Your task to perform on an android device: open app "Reddit" Image 0: 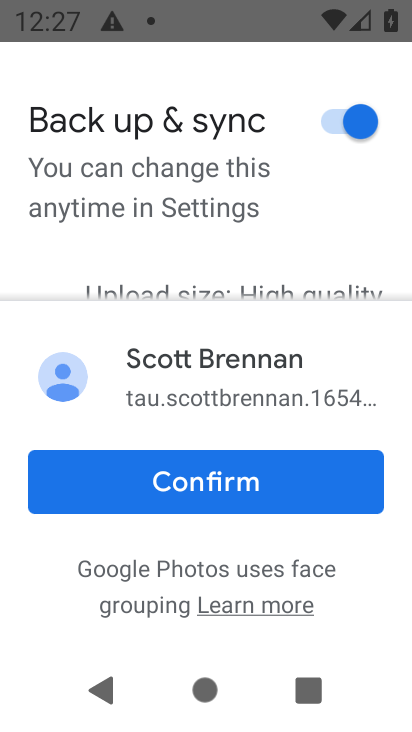
Step 0: press home button
Your task to perform on an android device: open app "Reddit" Image 1: 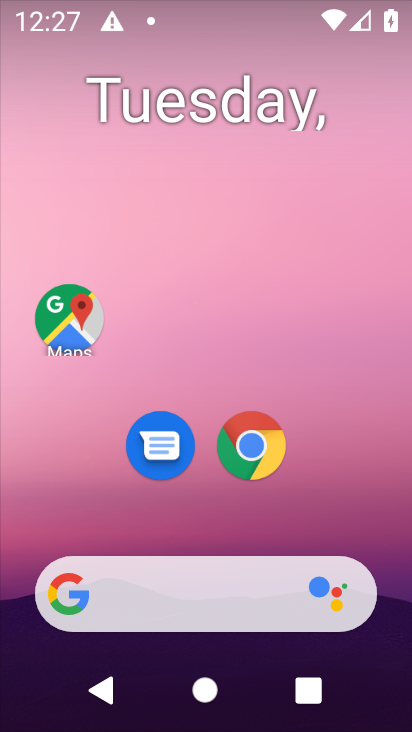
Step 1: drag from (395, 498) to (335, 236)
Your task to perform on an android device: open app "Reddit" Image 2: 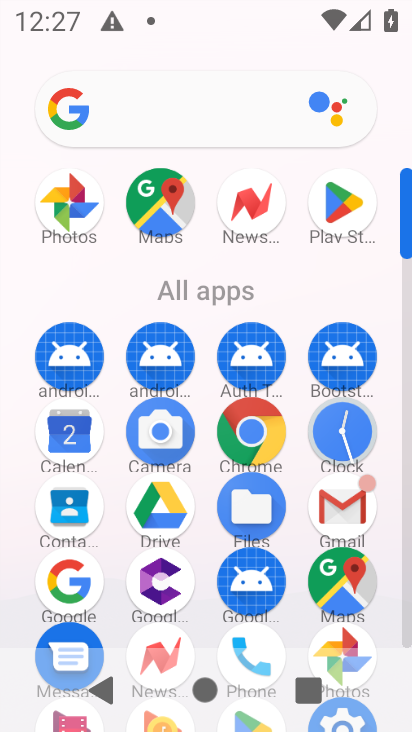
Step 2: click (335, 226)
Your task to perform on an android device: open app "Reddit" Image 3: 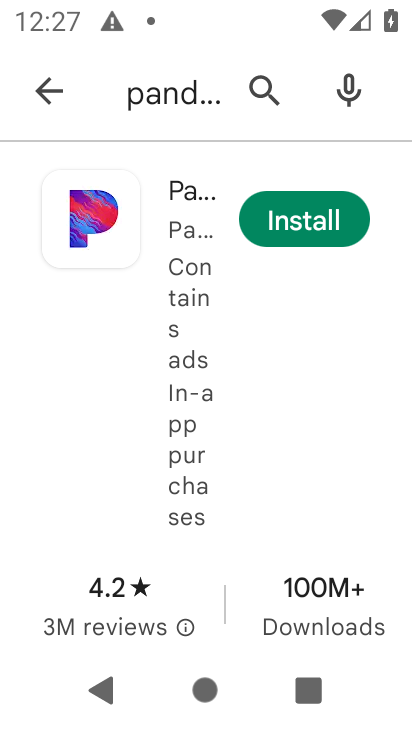
Step 3: click (249, 96)
Your task to perform on an android device: open app "Reddit" Image 4: 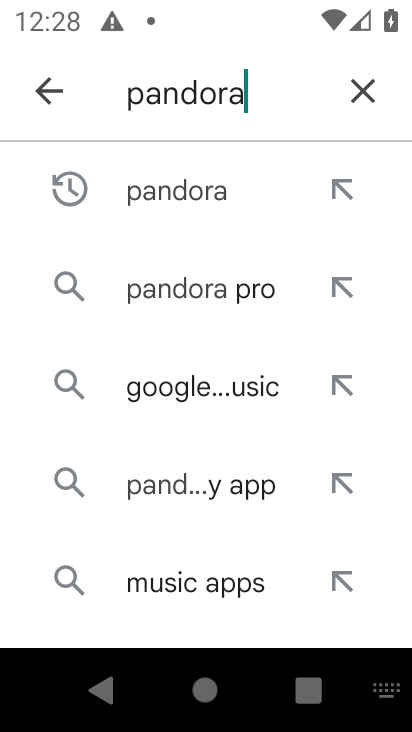
Step 4: click (367, 95)
Your task to perform on an android device: open app "Reddit" Image 5: 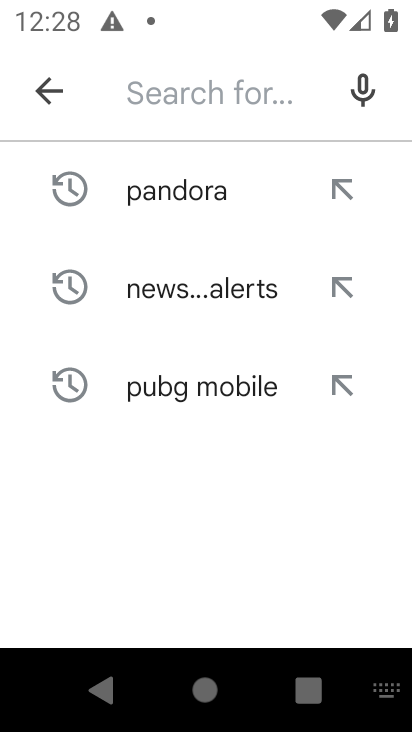
Step 5: type "reddit"
Your task to perform on an android device: open app "Reddit" Image 6: 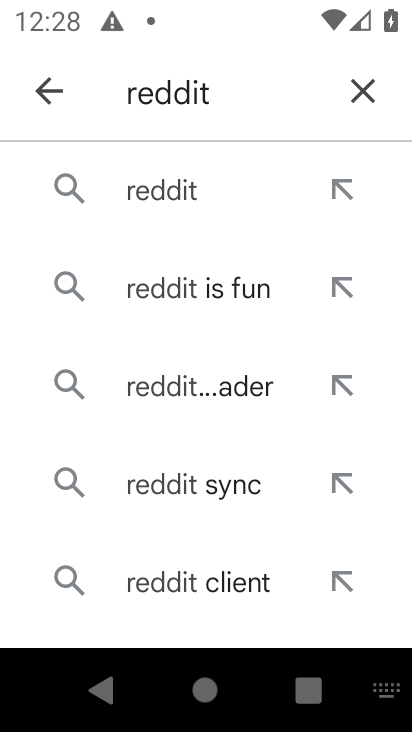
Step 6: click (192, 167)
Your task to perform on an android device: open app "Reddit" Image 7: 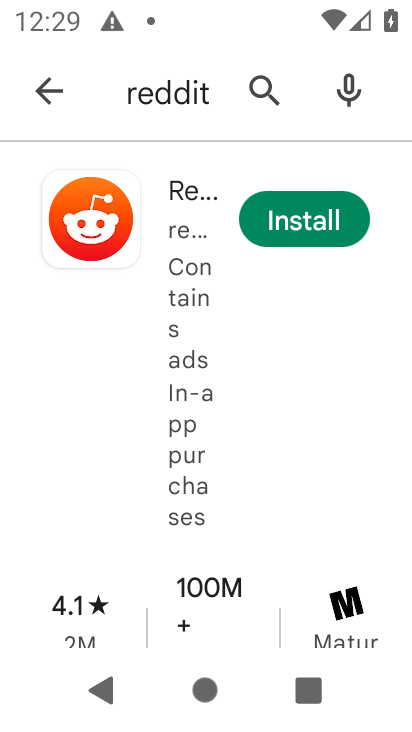
Step 7: task complete